Your task to perform on an android device: toggle location history Image 0: 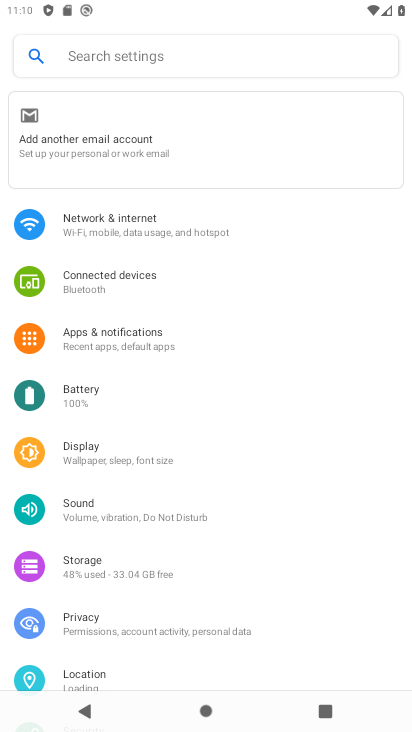
Step 0: press home button
Your task to perform on an android device: toggle location history Image 1: 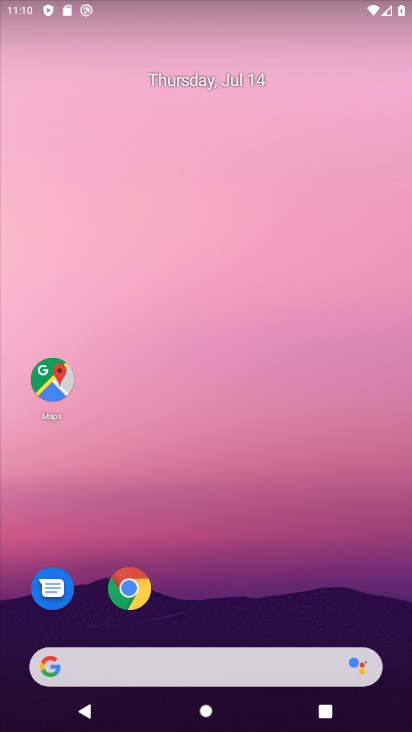
Step 1: drag from (216, 589) to (76, 3)
Your task to perform on an android device: toggle location history Image 2: 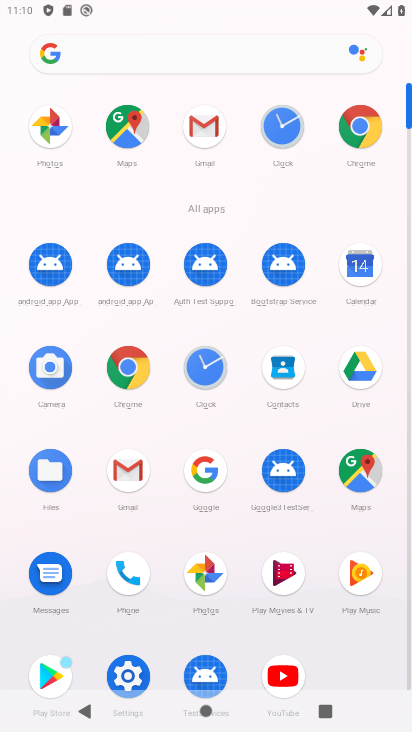
Step 2: click (125, 668)
Your task to perform on an android device: toggle location history Image 3: 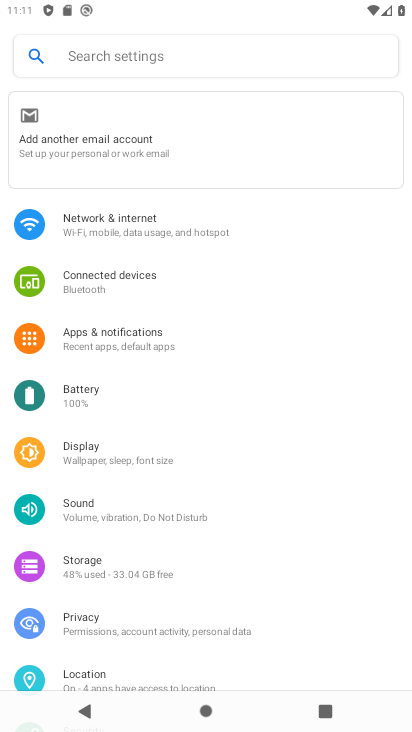
Step 3: click (77, 681)
Your task to perform on an android device: toggle location history Image 4: 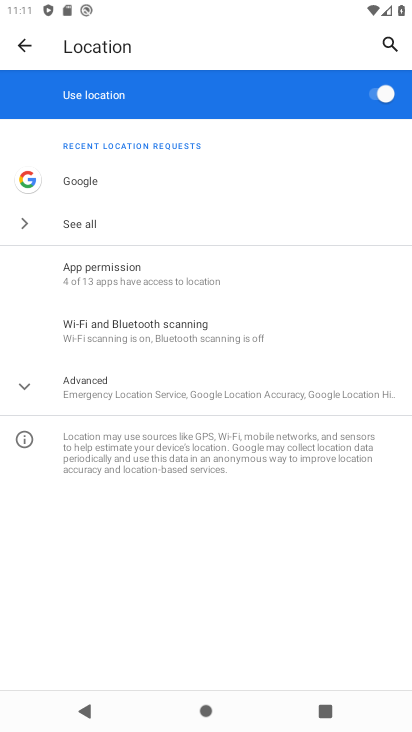
Step 4: click (107, 391)
Your task to perform on an android device: toggle location history Image 5: 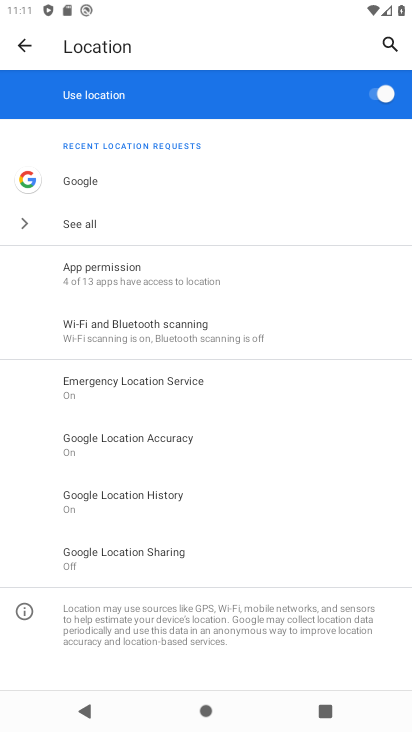
Step 5: click (147, 510)
Your task to perform on an android device: toggle location history Image 6: 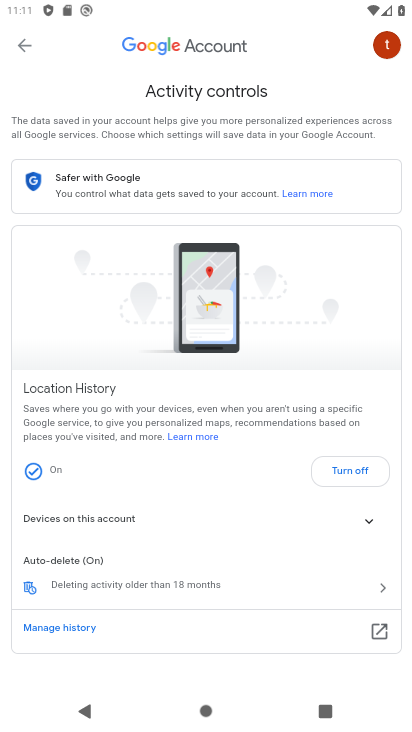
Step 6: click (344, 470)
Your task to perform on an android device: toggle location history Image 7: 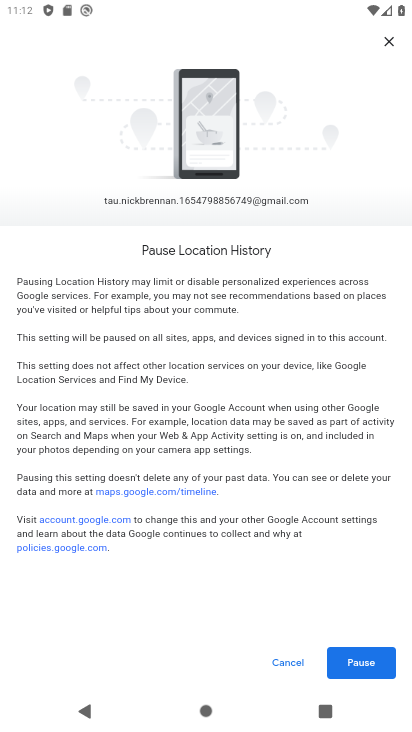
Step 7: click (365, 670)
Your task to perform on an android device: toggle location history Image 8: 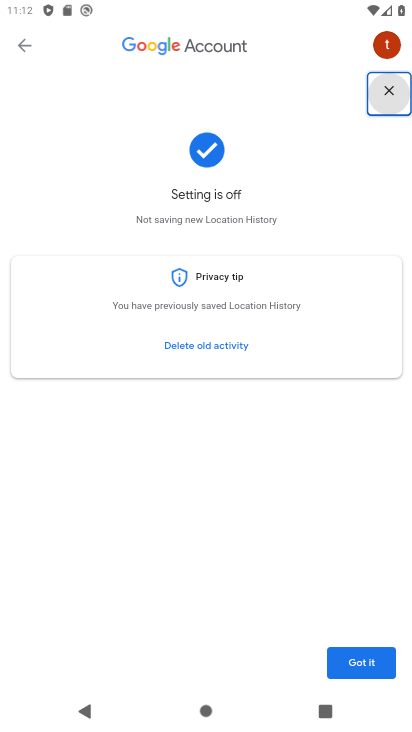
Step 8: click (363, 662)
Your task to perform on an android device: toggle location history Image 9: 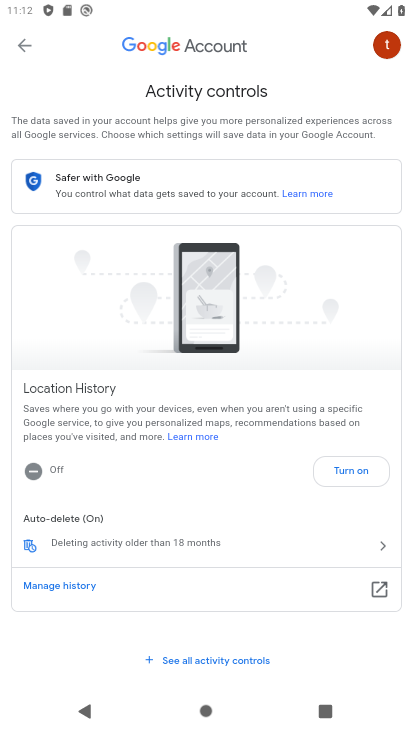
Step 9: task complete